Your task to perform on an android device: turn off notifications settings in the gmail app Image 0: 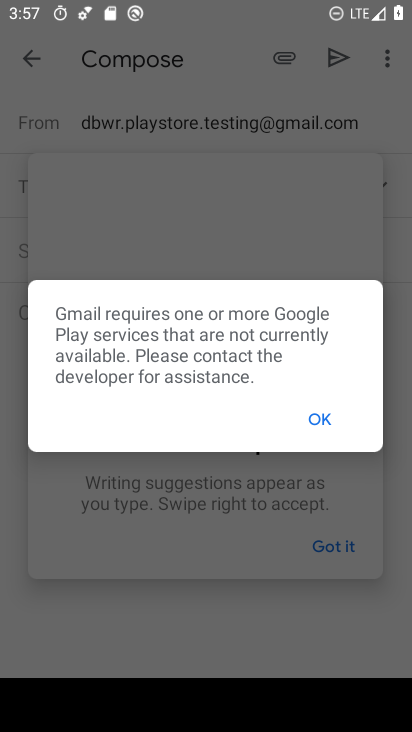
Step 0: press home button
Your task to perform on an android device: turn off notifications settings in the gmail app Image 1: 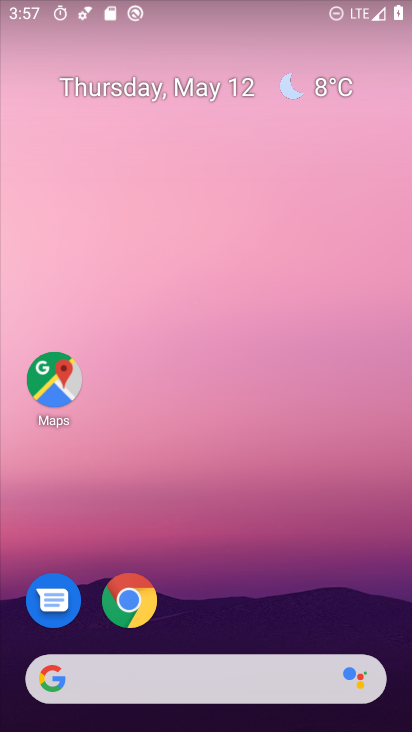
Step 1: drag from (200, 722) to (205, 193)
Your task to perform on an android device: turn off notifications settings in the gmail app Image 2: 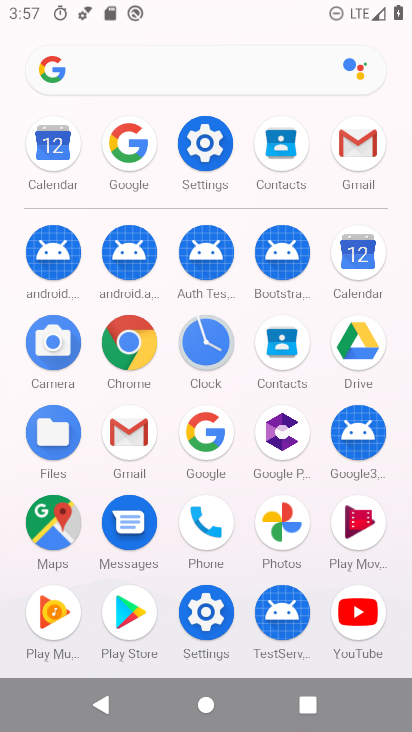
Step 2: click (355, 148)
Your task to perform on an android device: turn off notifications settings in the gmail app Image 3: 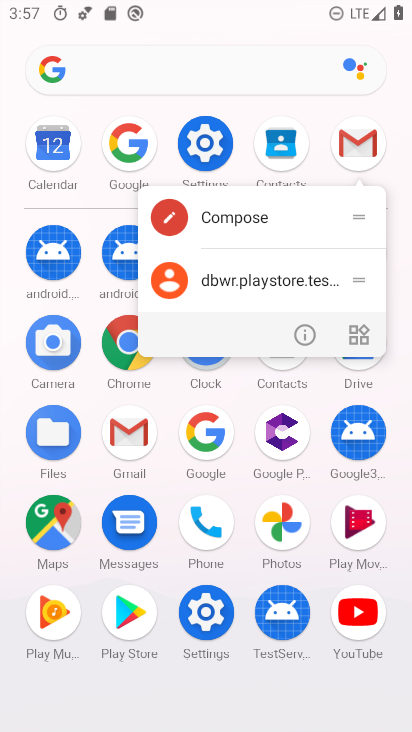
Step 3: click (356, 136)
Your task to perform on an android device: turn off notifications settings in the gmail app Image 4: 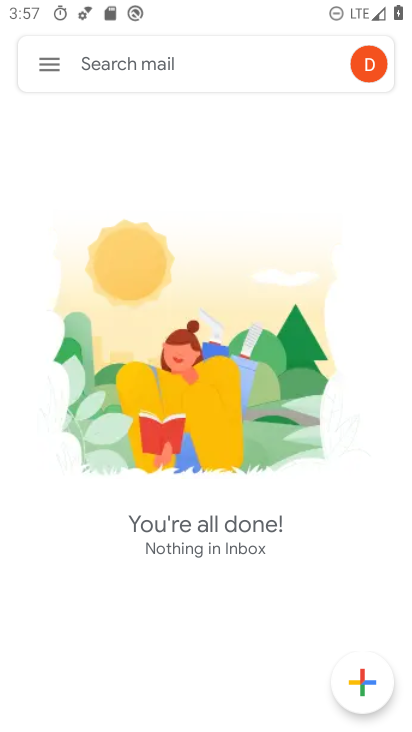
Step 4: click (49, 62)
Your task to perform on an android device: turn off notifications settings in the gmail app Image 5: 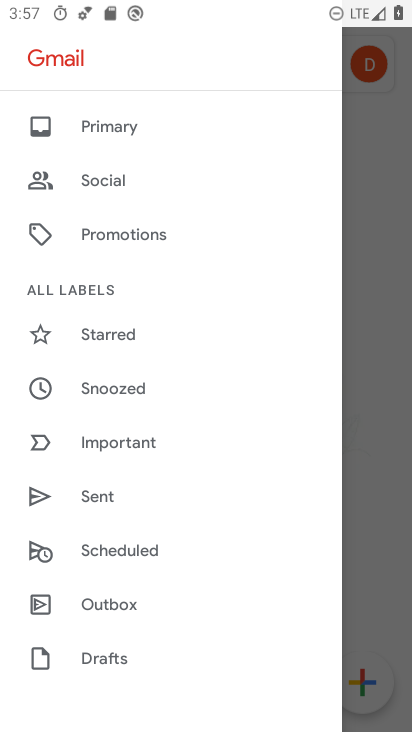
Step 5: drag from (109, 663) to (109, 275)
Your task to perform on an android device: turn off notifications settings in the gmail app Image 6: 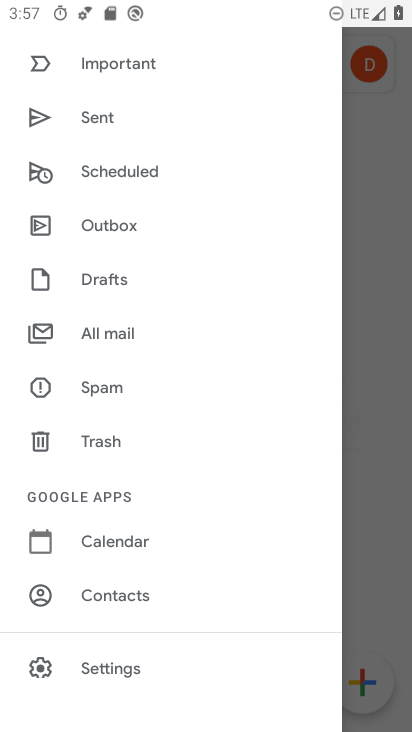
Step 6: click (106, 663)
Your task to perform on an android device: turn off notifications settings in the gmail app Image 7: 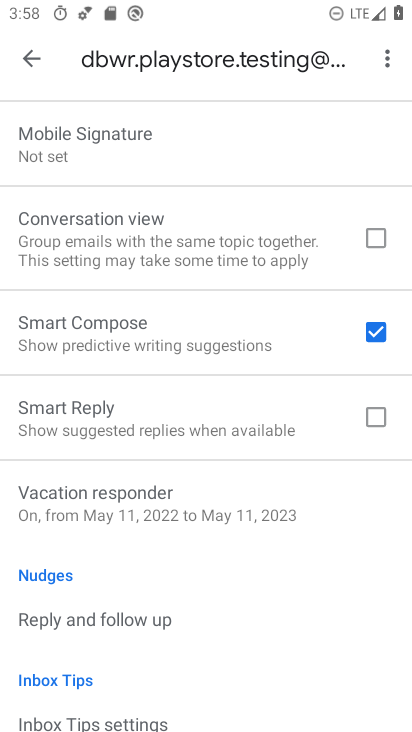
Step 7: drag from (184, 137) to (195, 562)
Your task to perform on an android device: turn off notifications settings in the gmail app Image 8: 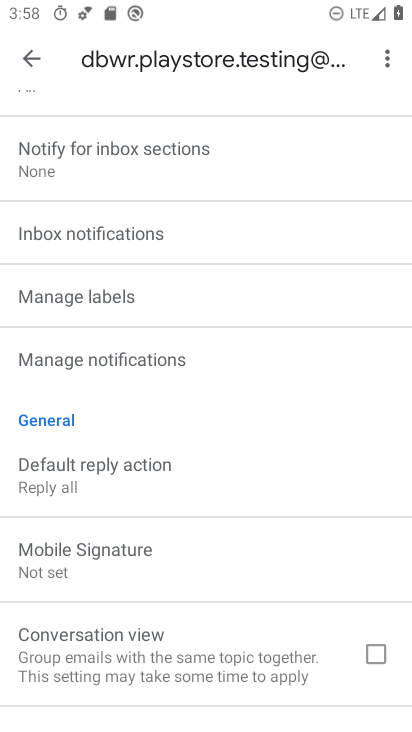
Step 8: drag from (203, 162) to (220, 488)
Your task to perform on an android device: turn off notifications settings in the gmail app Image 9: 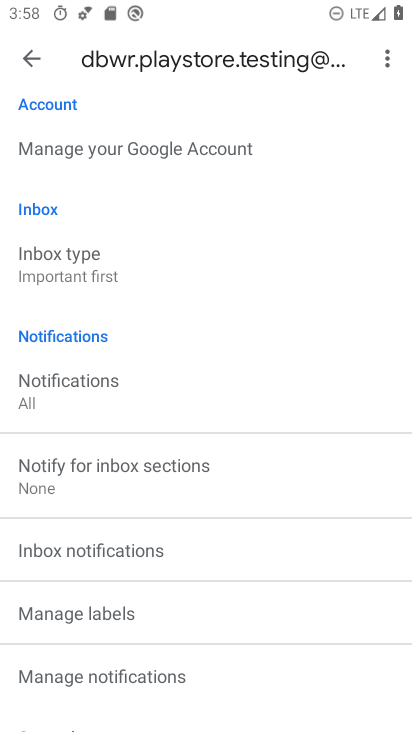
Step 9: click (65, 380)
Your task to perform on an android device: turn off notifications settings in the gmail app Image 10: 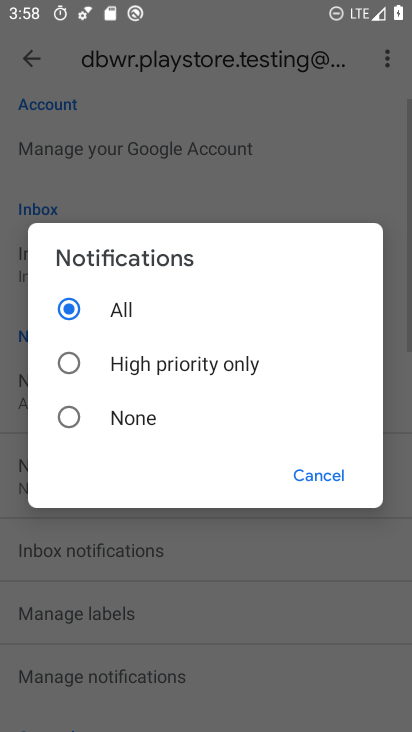
Step 10: click (72, 414)
Your task to perform on an android device: turn off notifications settings in the gmail app Image 11: 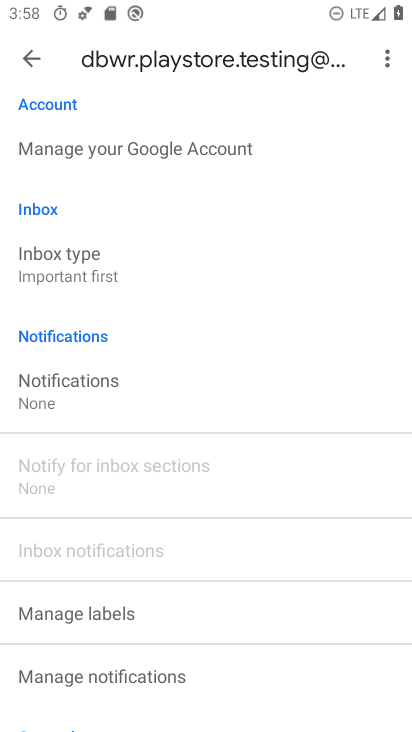
Step 11: task complete